Your task to perform on an android device: delete a single message in the gmail app Image 0: 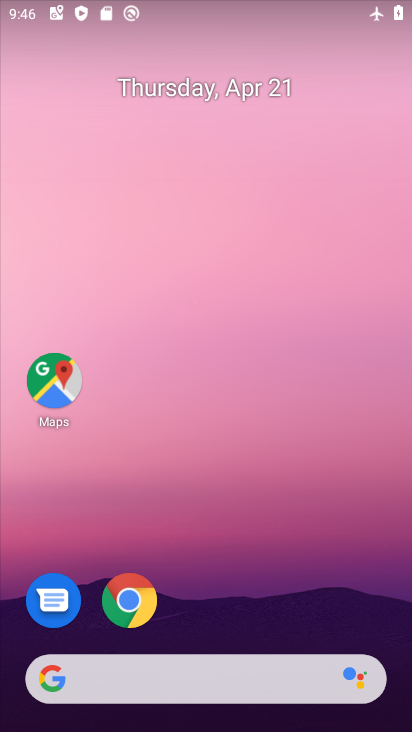
Step 0: drag from (231, 576) to (196, 0)
Your task to perform on an android device: delete a single message in the gmail app Image 1: 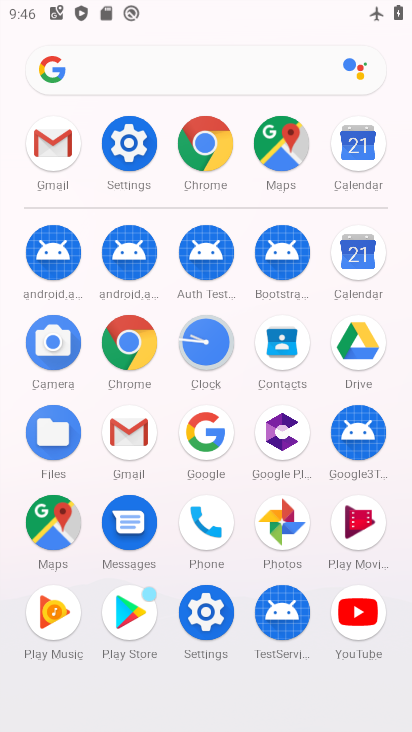
Step 1: click (55, 139)
Your task to perform on an android device: delete a single message in the gmail app Image 2: 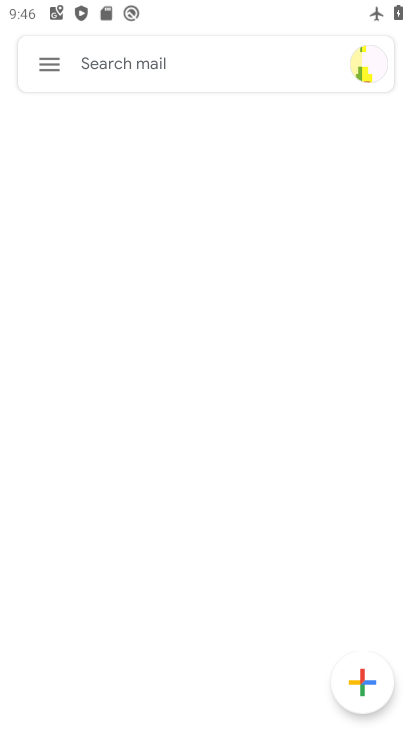
Step 2: click (38, 52)
Your task to perform on an android device: delete a single message in the gmail app Image 3: 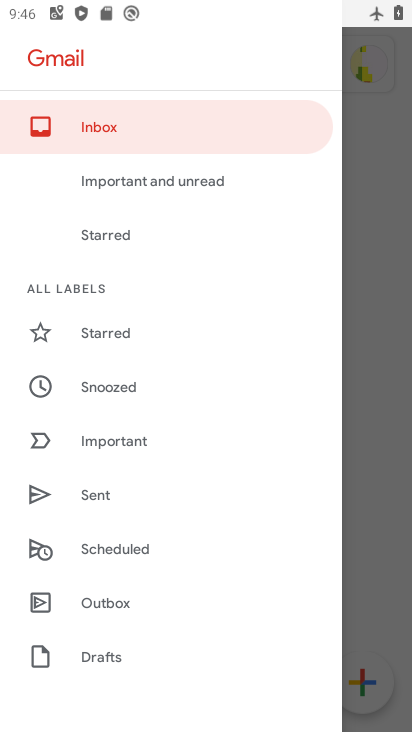
Step 3: drag from (132, 587) to (191, 137)
Your task to perform on an android device: delete a single message in the gmail app Image 4: 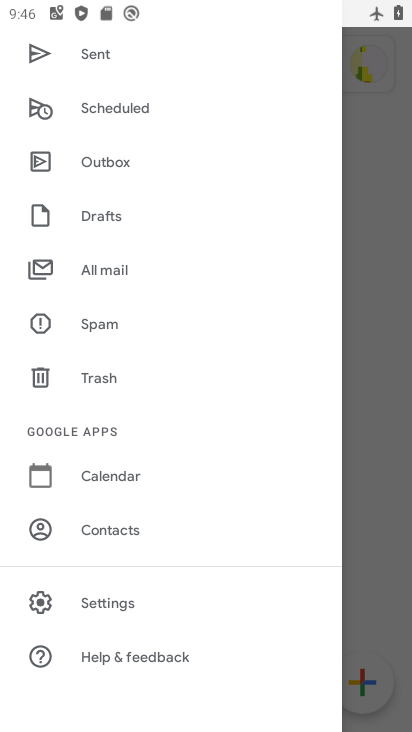
Step 4: click (142, 274)
Your task to perform on an android device: delete a single message in the gmail app Image 5: 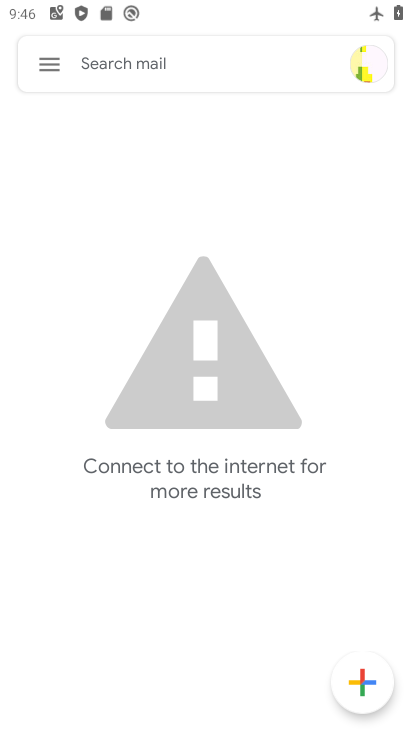
Step 5: task complete